Your task to perform on an android device: open app "Cash App" Image 0: 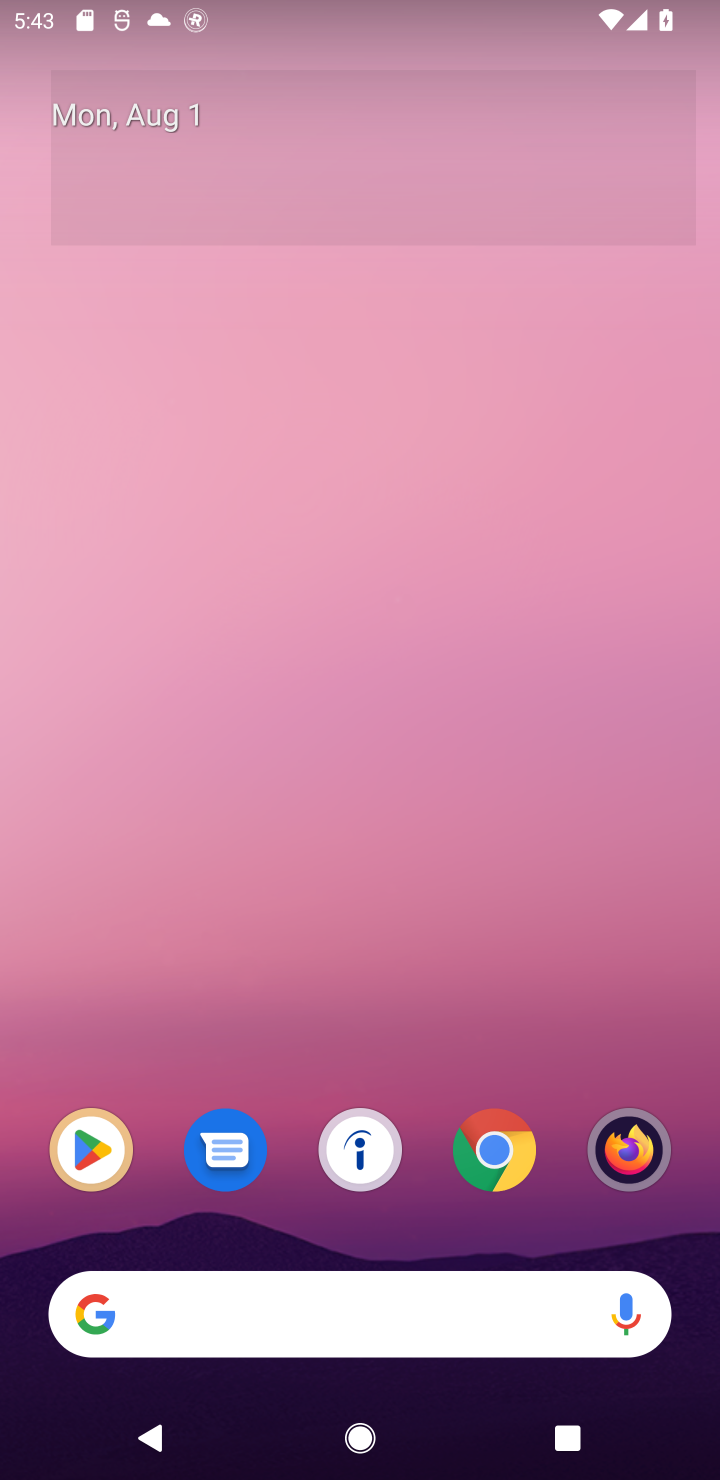
Step 0: drag from (288, 1258) to (321, 26)
Your task to perform on an android device: open app "Cash App" Image 1: 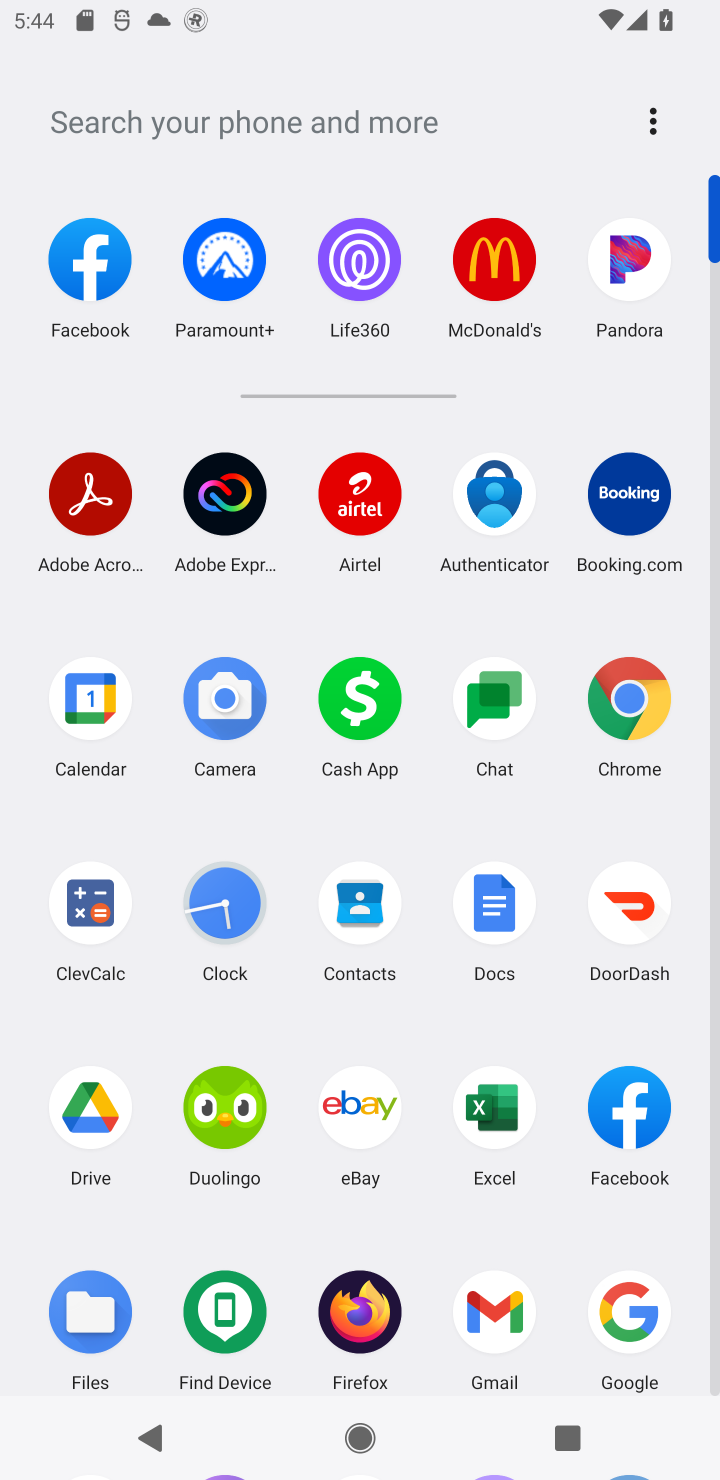
Step 1: click (326, 144)
Your task to perform on an android device: open app "Cash App" Image 2: 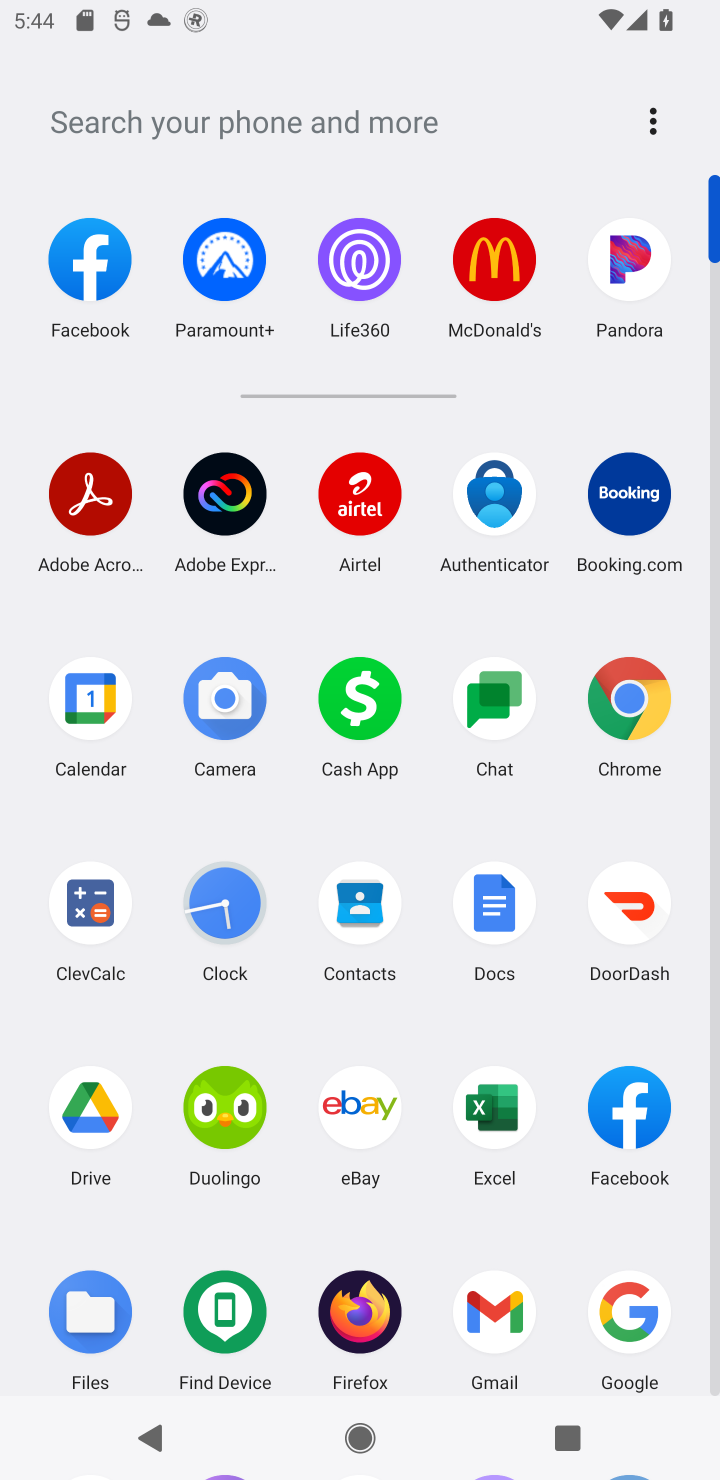
Step 2: click (306, 120)
Your task to perform on an android device: open app "Cash App" Image 3: 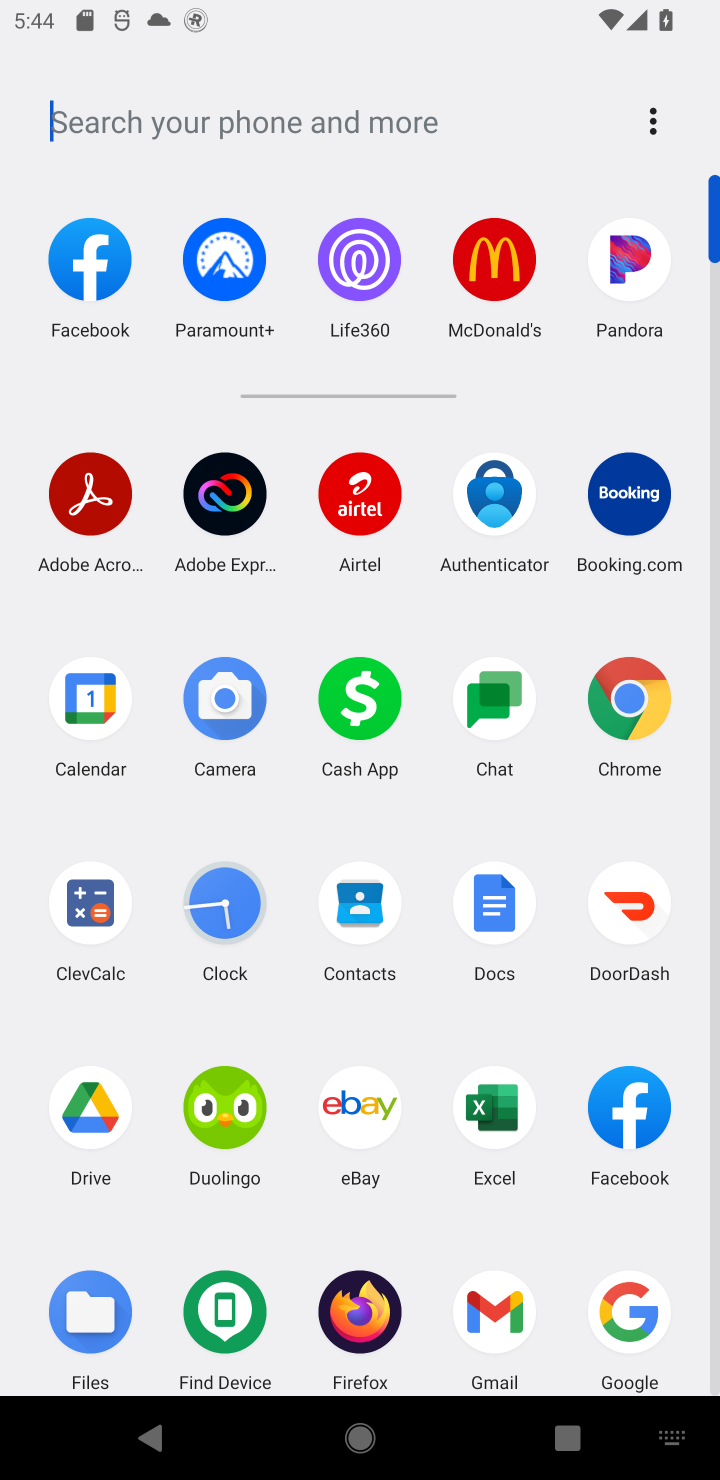
Step 3: type "cash app"
Your task to perform on an android device: open app "Cash App" Image 4: 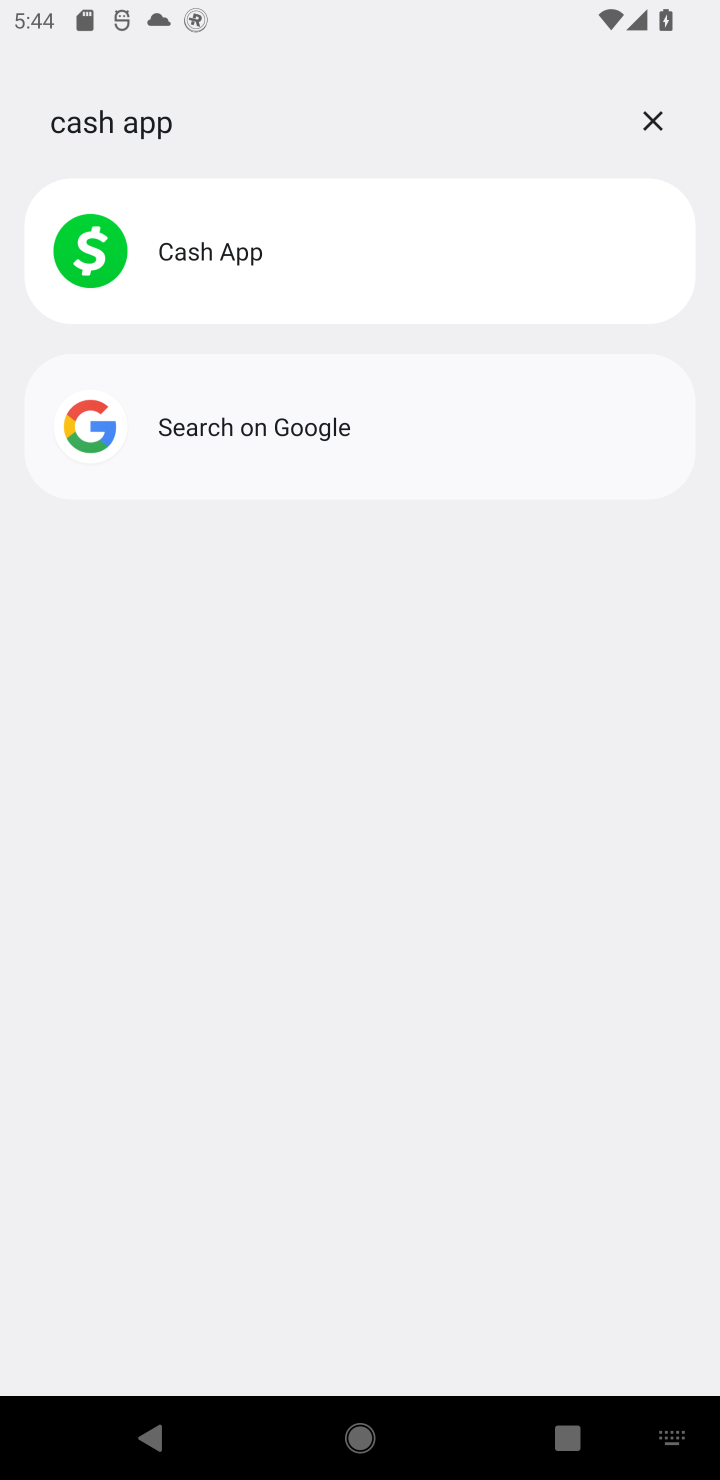
Step 4: click (432, 284)
Your task to perform on an android device: open app "Cash App" Image 5: 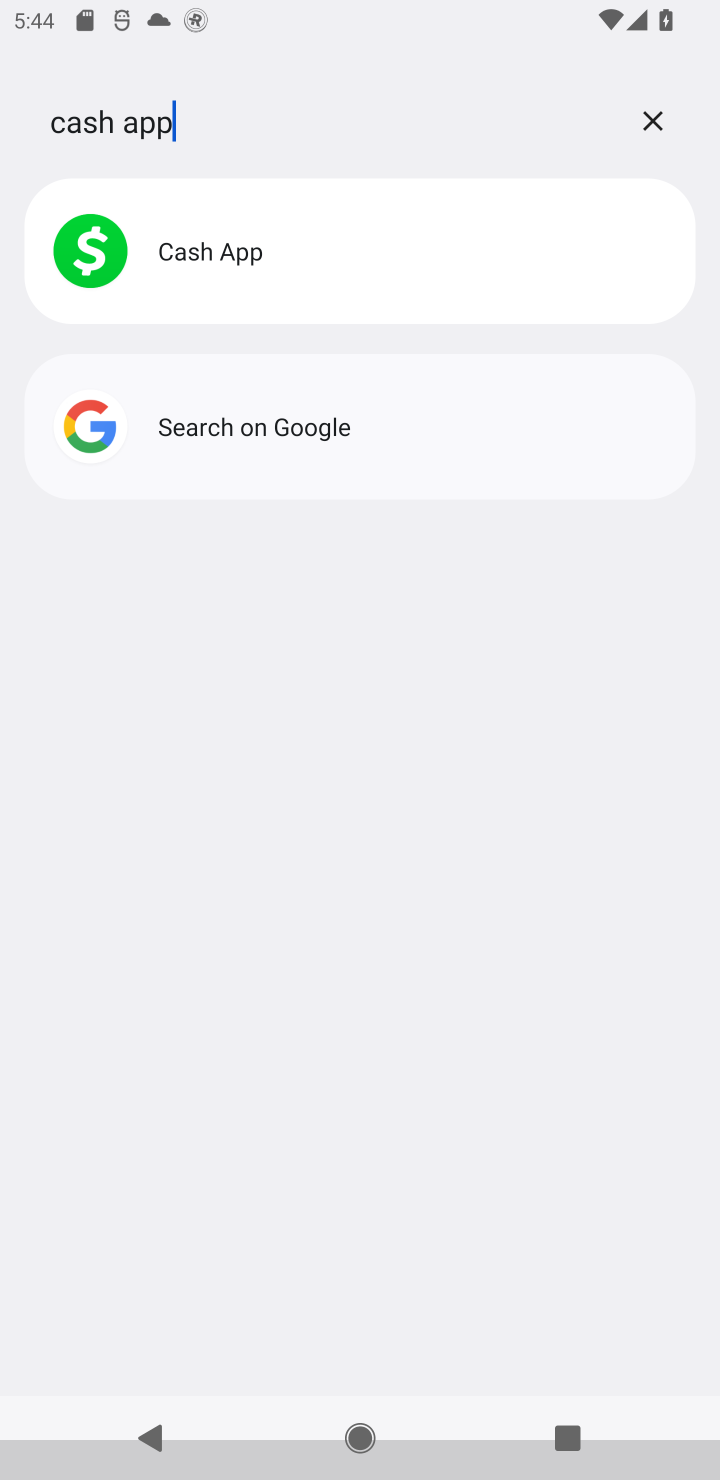
Step 5: task complete